Your task to perform on an android device: Open battery settings Image 0: 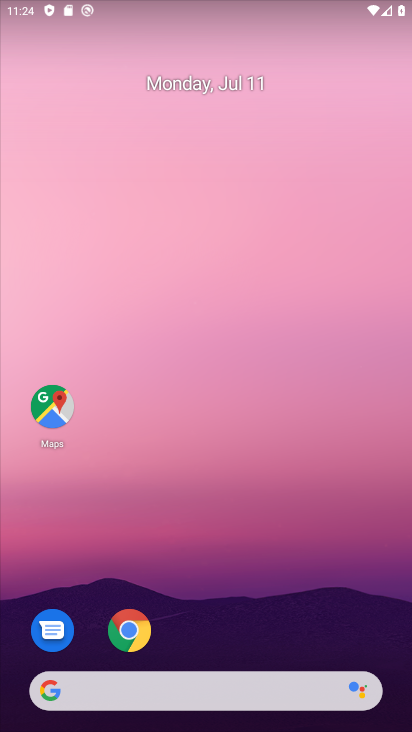
Step 0: drag from (209, 690) to (215, 102)
Your task to perform on an android device: Open battery settings Image 1: 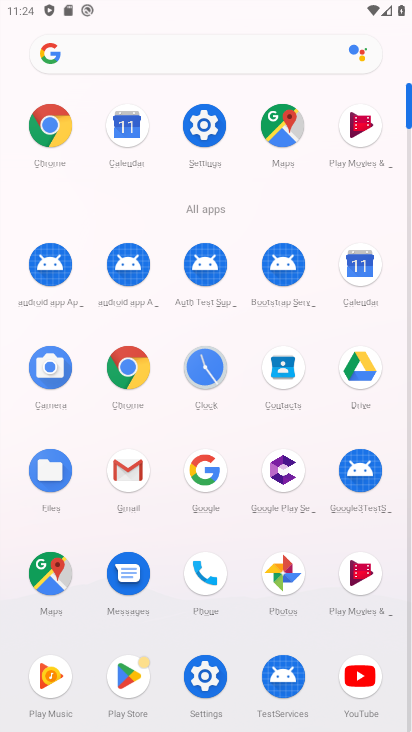
Step 1: click (202, 125)
Your task to perform on an android device: Open battery settings Image 2: 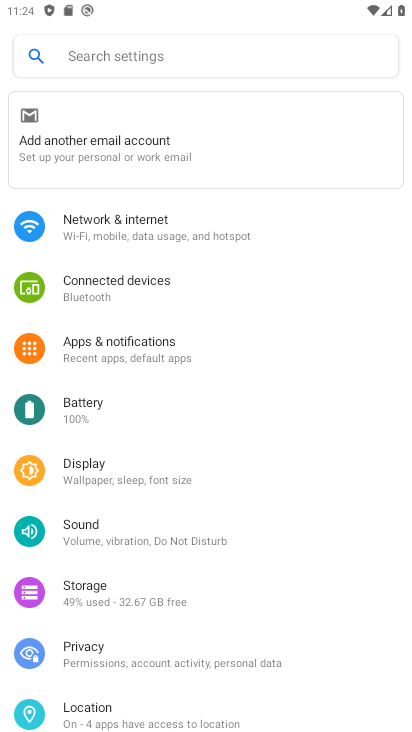
Step 2: click (76, 406)
Your task to perform on an android device: Open battery settings Image 3: 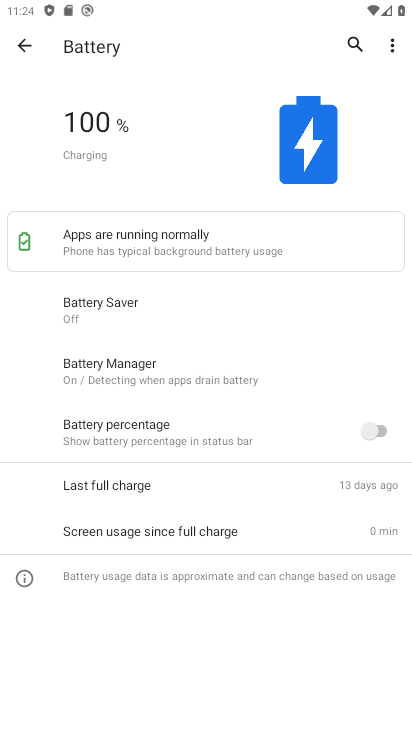
Step 3: task complete